Your task to perform on an android device: turn off priority inbox in the gmail app Image 0: 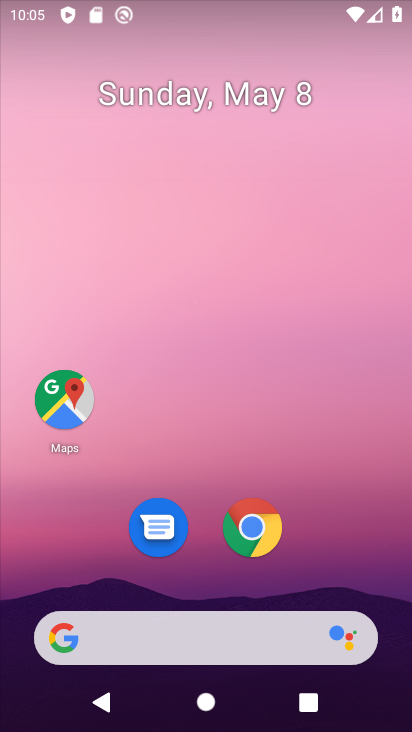
Step 0: drag from (300, 523) to (262, 148)
Your task to perform on an android device: turn off priority inbox in the gmail app Image 1: 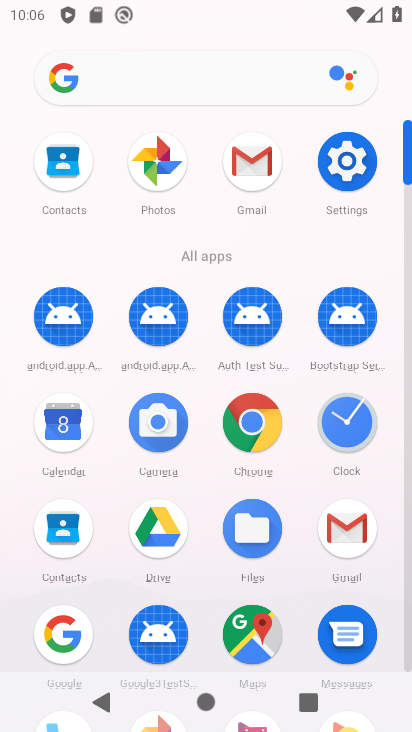
Step 1: click (338, 545)
Your task to perform on an android device: turn off priority inbox in the gmail app Image 2: 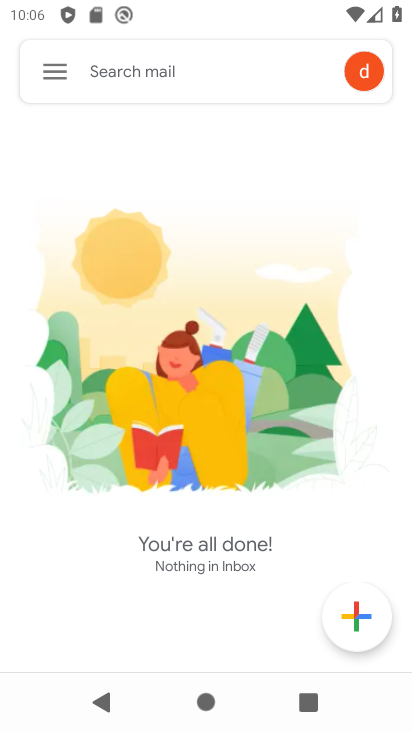
Step 2: click (58, 71)
Your task to perform on an android device: turn off priority inbox in the gmail app Image 3: 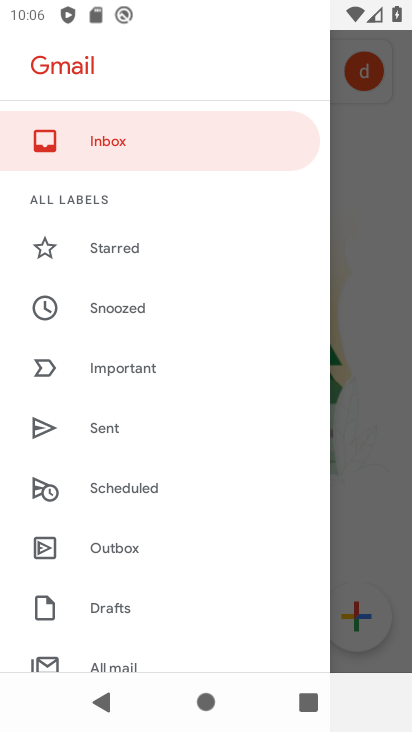
Step 3: drag from (165, 601) to (169, 196)
Your task to perform on an android device: turn off priority inbox in the gmail app Image 4: 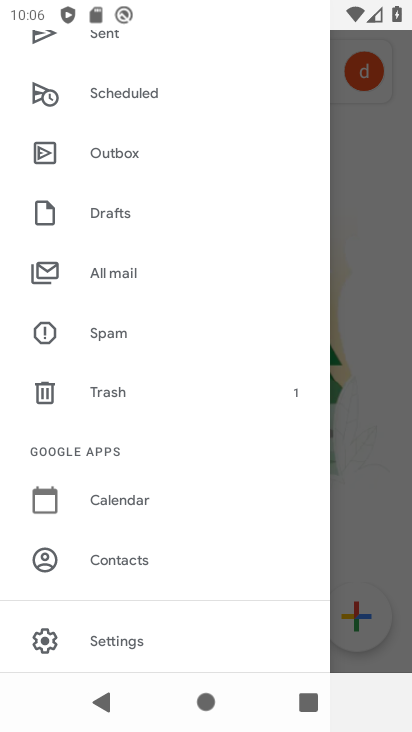
Step 4: click (140, 644)
Your task to perform on an android device: turn off priority inbox in the gmail app Image 5: 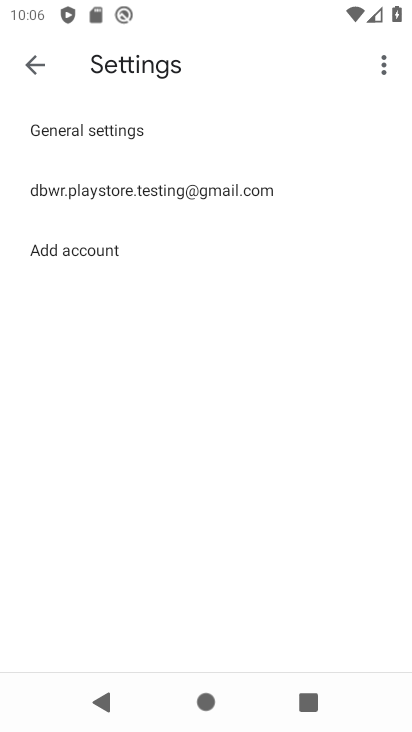
Step 5: click (142, 202)
Your task to perform on an android device: turn off priority inbox in the gmail app Image 6: 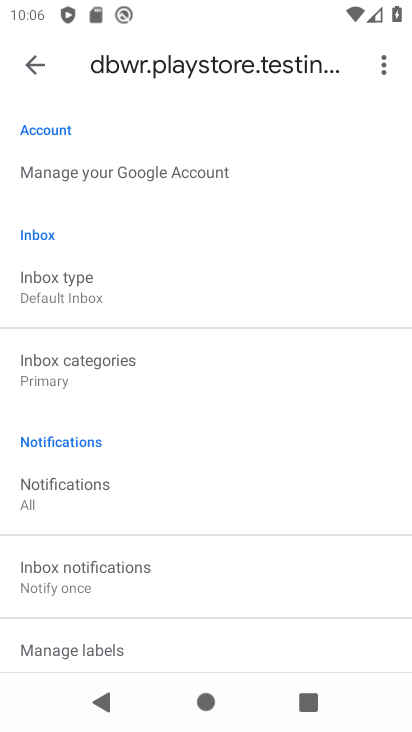
Step 6: drag from (185, 609) to (181, 346)
Your task to perform on an android device: turn off priority inbox in the gmail app Image 7: 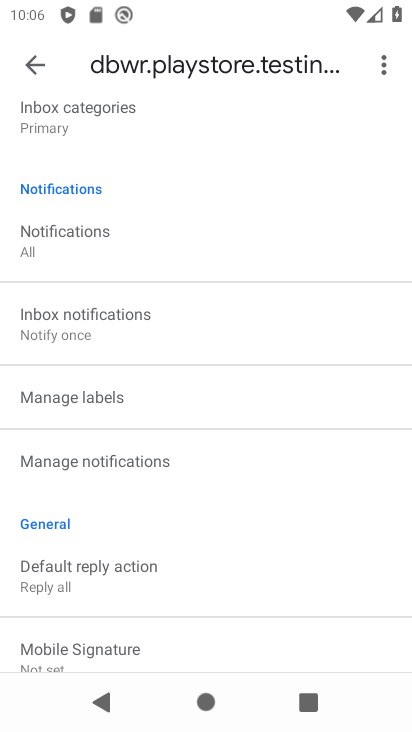
Step 7: drag from (181, 608) to (171, 378)
Your task to perform on an android device: turn off priority inbox in the gmail app Image 8: 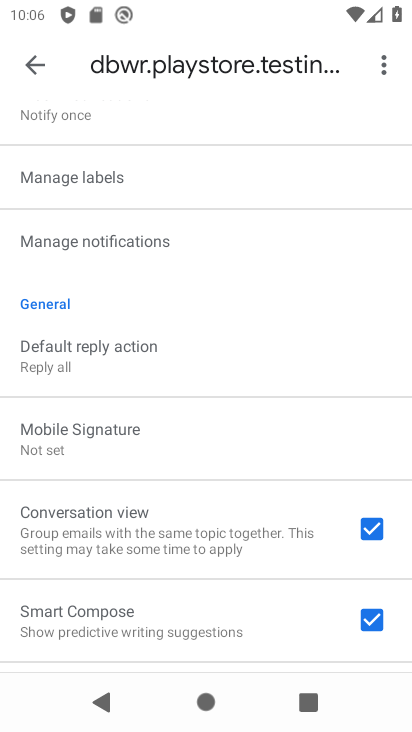
Step 8: drag from (201, 287) to (215, 671)
Your task to perform on an android device: turn off priority inbox in the gmail app Image 9: 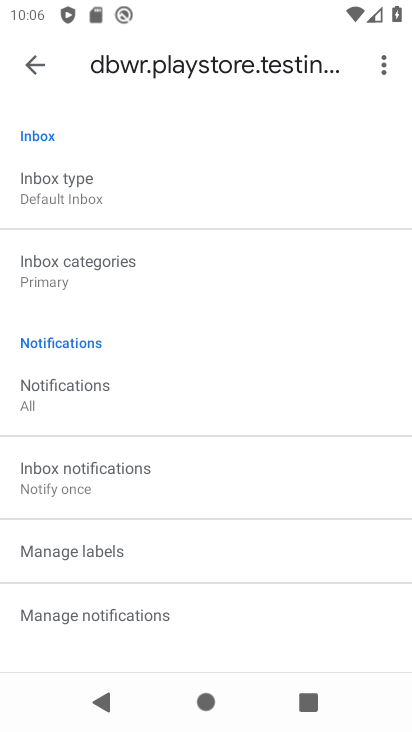
Step 9: drag from (210, 339) to (189, 582)
Your task to perform on an android device: turn off priority inbox in the gmail app Image 10: 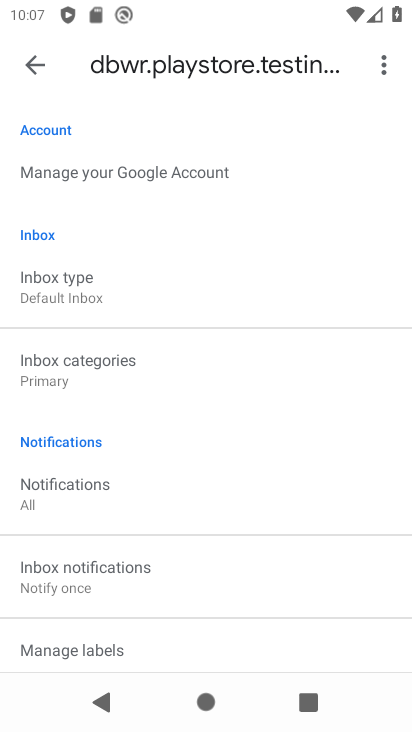
Step 10: drag from (176, 519) to (202, 163)
Your task to perform on an android device: turn off priority inbox in the gmail app Image 11: 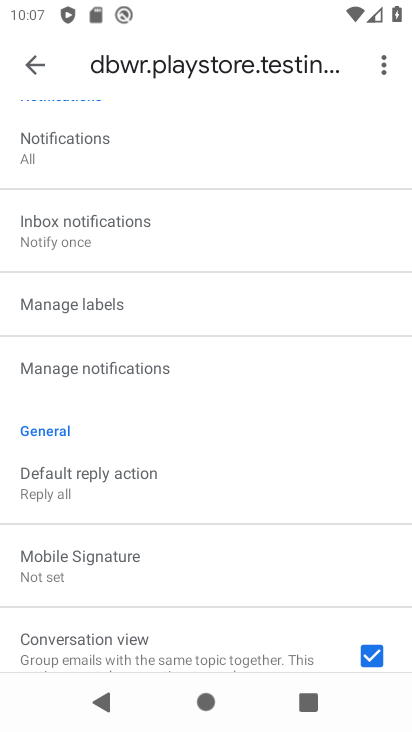
Step 11: drag from (210, 579) to (208, 414)
Your task to perform on an android device: turn off priority inbox in the gmail app Image 12: 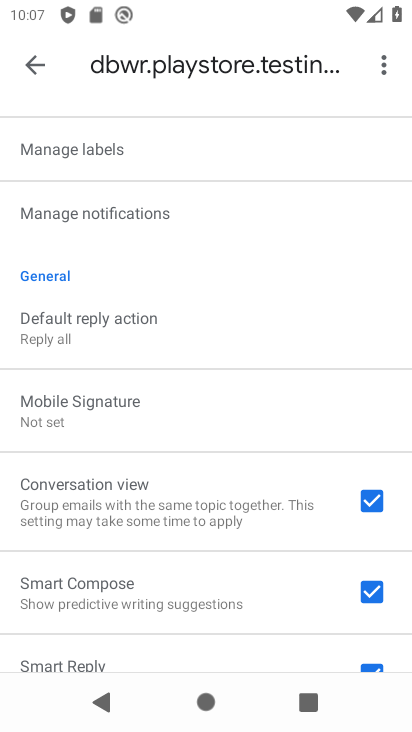
Step 12: drag from (159, 652) to (193, 164)
Your task to perform on an android device: turn off priority inbox in the gmail app Image 13: 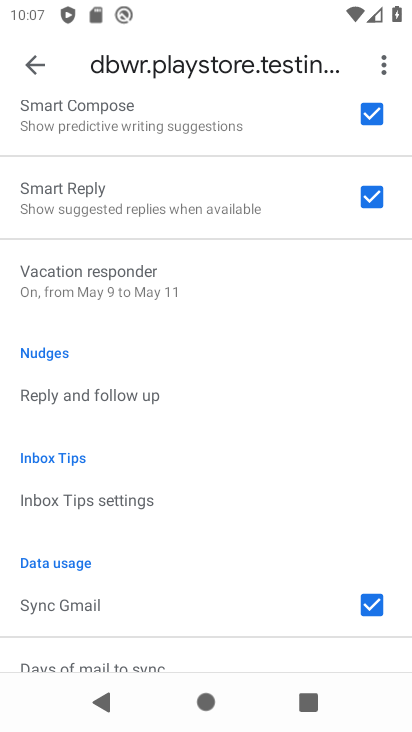
Step 13: drag from (193, 568) to (220, 187)
Your task to perform on an android device: turn off priority inbox in the gmail app Image 14: 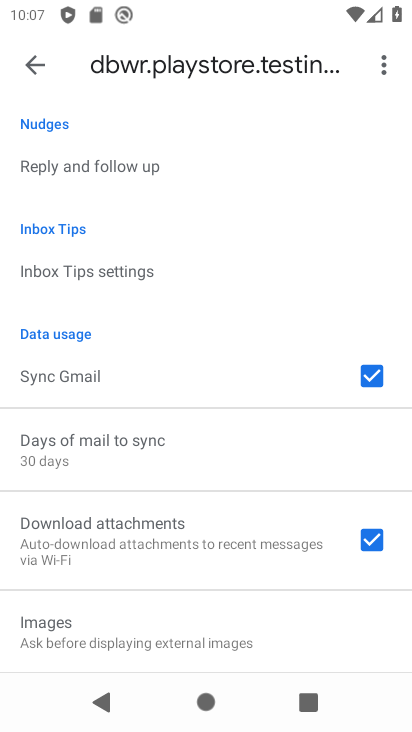
Step 14: drag from (171, 275) to (148, 612)
Your task to perform on an android device: turn off priority inbox in the gmail app Image 15: 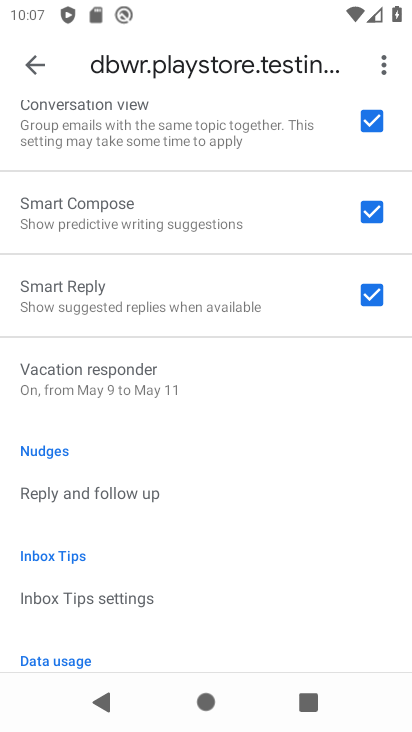
Step 15: drag from (146, 253) to (114, 700)
Your task to perform on an android device: turn off priority inbox in the gmail app Image 16: 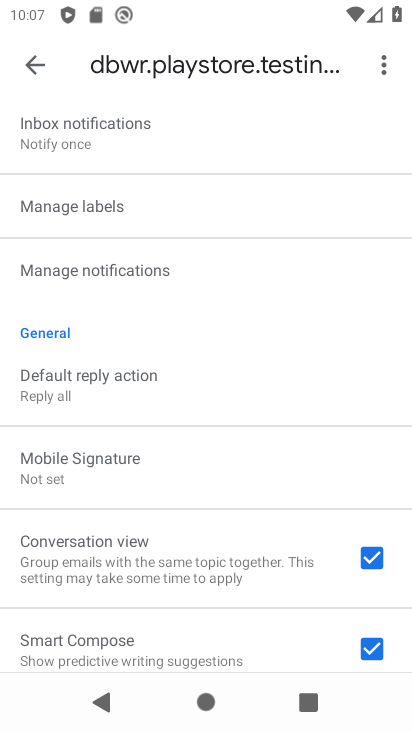
Step 16: drag from (212, 207) to (206, 596)
Your task to perform on an android device: turn off priority inbox in the gmail app Image 17: 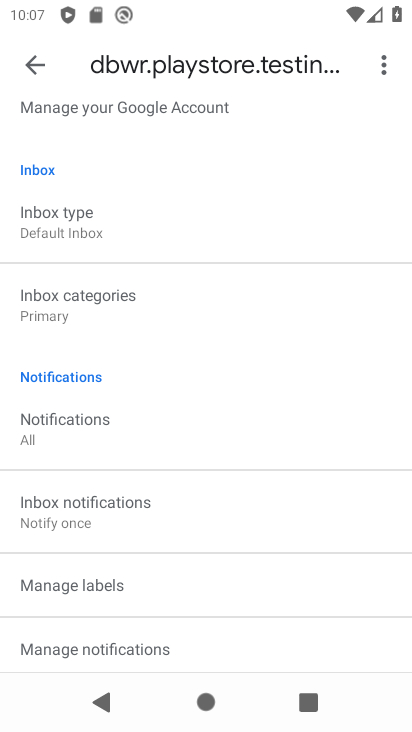
Step 17: click (105, 232)
Your task to perform on an android device: turn off priority inbox in the gmail app Image 18: 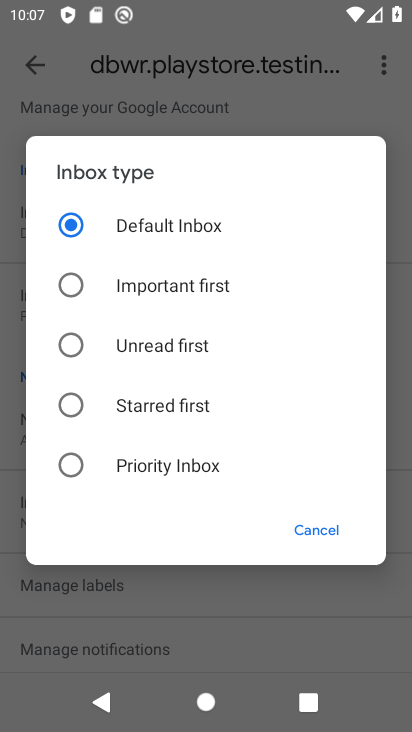
Step 18: click (179, 289)
Your task to perform on an android device: turn off priority inbox in the gmail app Image 19: 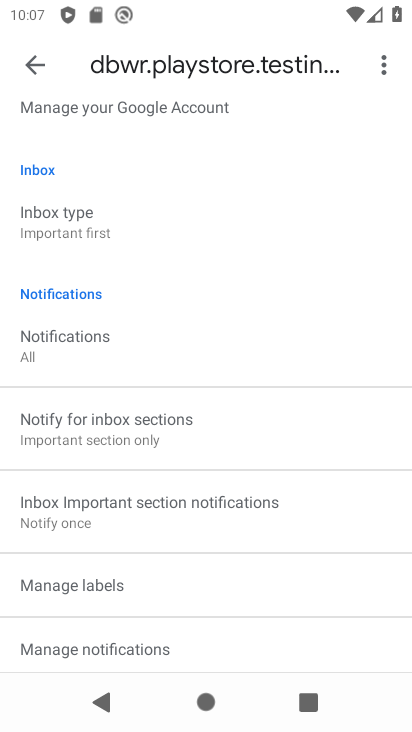
Step 19: task complete